Your task to perform on an android device: Open calendar and show me the first week of next month Image 0: 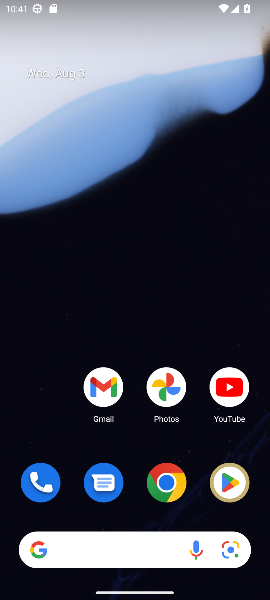
Step 0: task complete